Your task to perform on an android device: Open display settings Image 0: 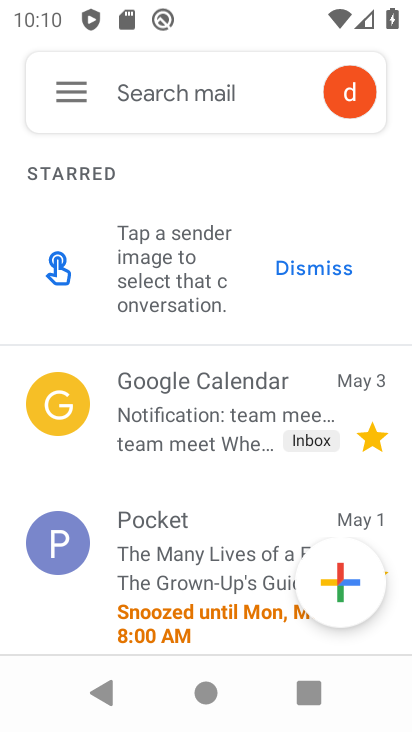
Step 0: press home button
Your task to perform on an android device: Open display settings Image 1: 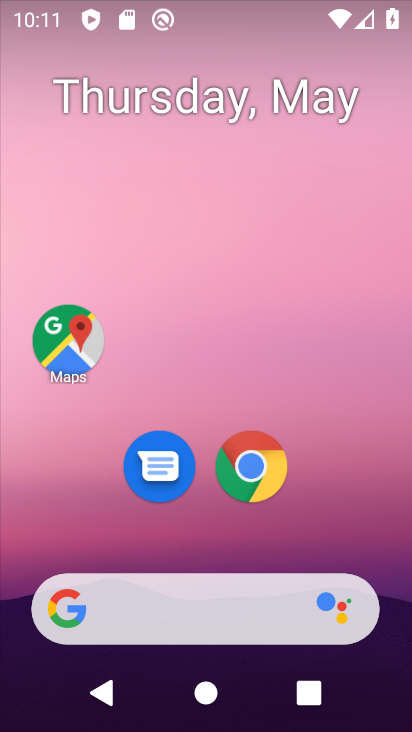
Step 1: drag from (351, 509) to (290, 54)
Your task to perform on an android device: Open display settings Image 2: 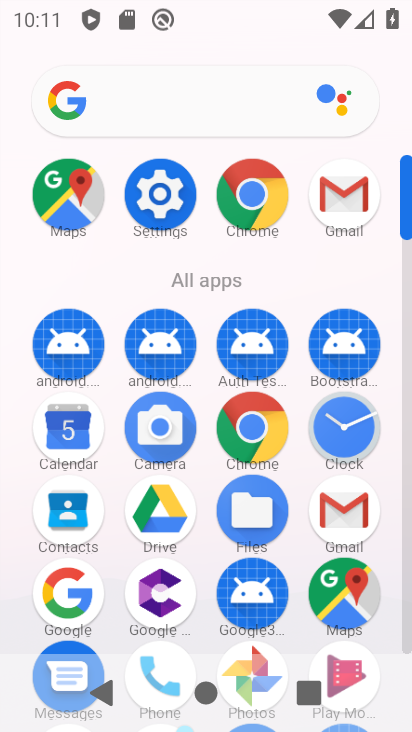
Step 2: click (165, 174)
Your task to perform on an android device: Open display settings Image 3: 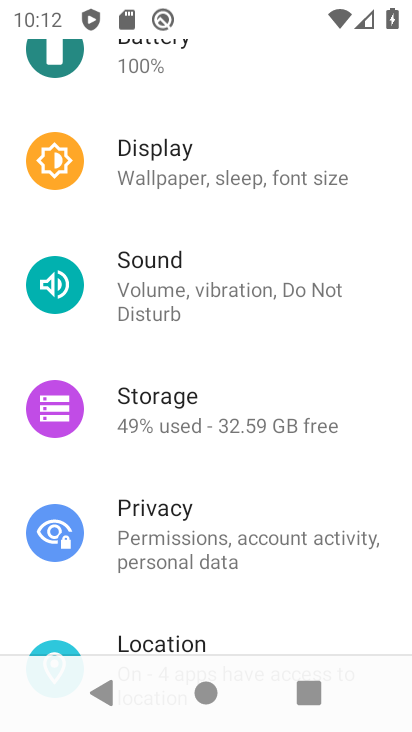
Step 3: click (153, 178)
Your task to perform on an android device: Open display settings Image 4: 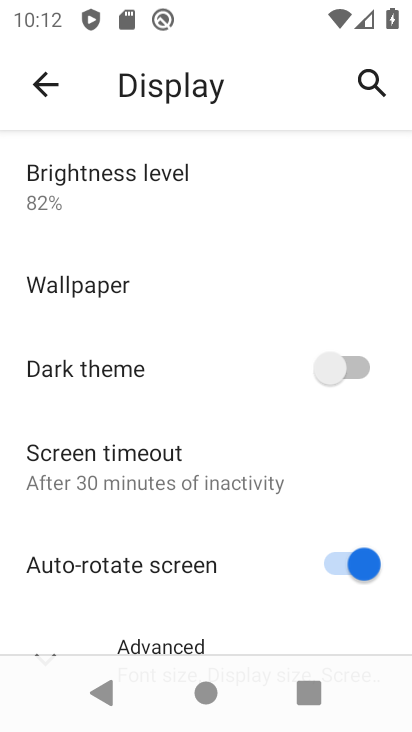
Step 4: task complete